Your task to perform on an android device: create a new album in the google photos Image 0: 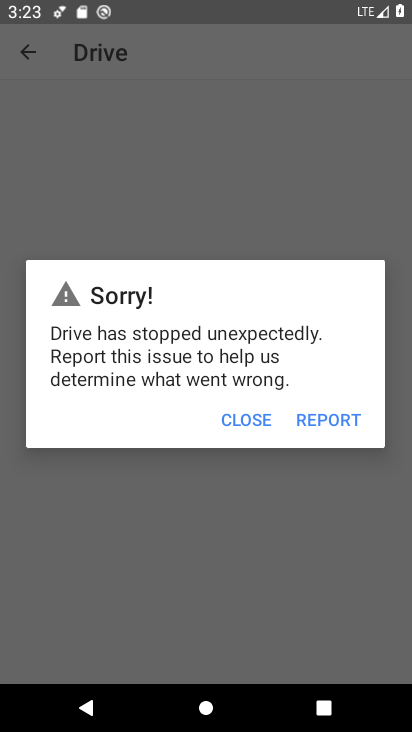
Step 0: press home button
Your task to perform on an android device: create a new album in the google photos Image 1: 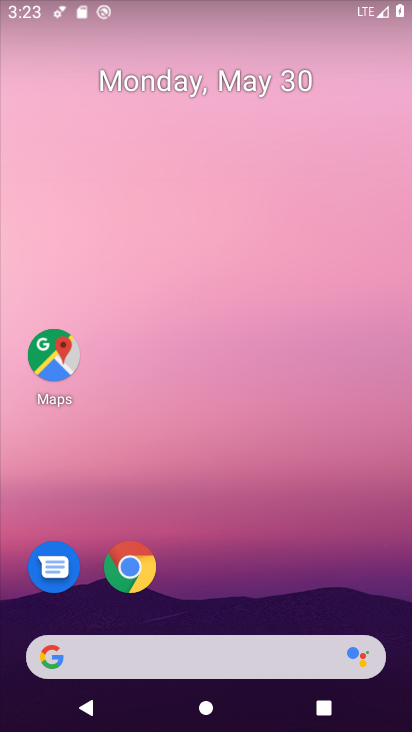
Step 1: drag from (259, 578) to (341, 10)
Your task to perform on an android device: create a new album in the google photos Image 2: 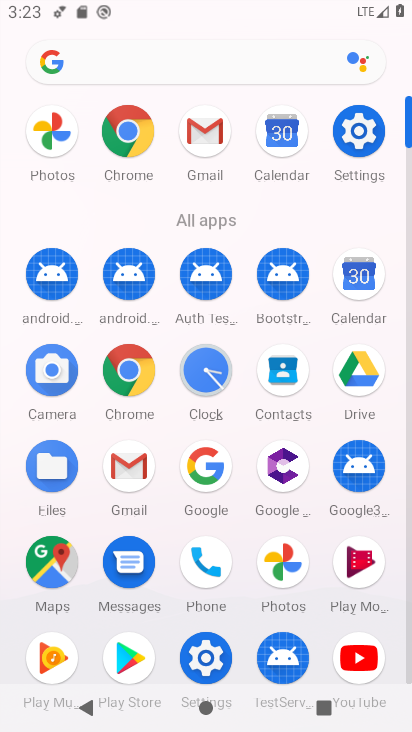
Step 2: click (61, 134)
Your task to perform on an android device: create a new album in the google photos Image 3: 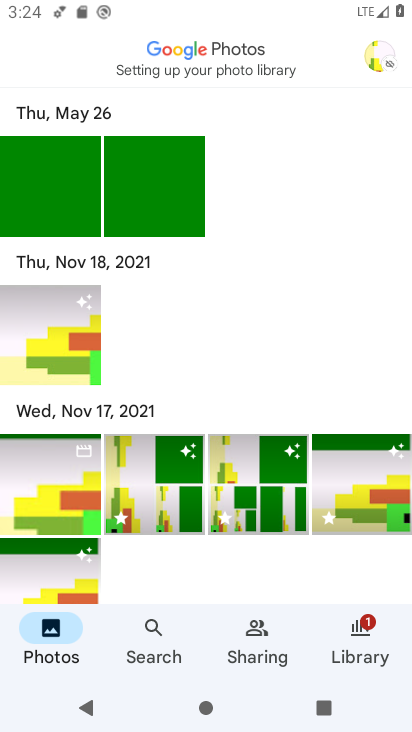
Step 3: click (347, 651)
Your task to perform on an android device: create a new album in the google photos Image 4: 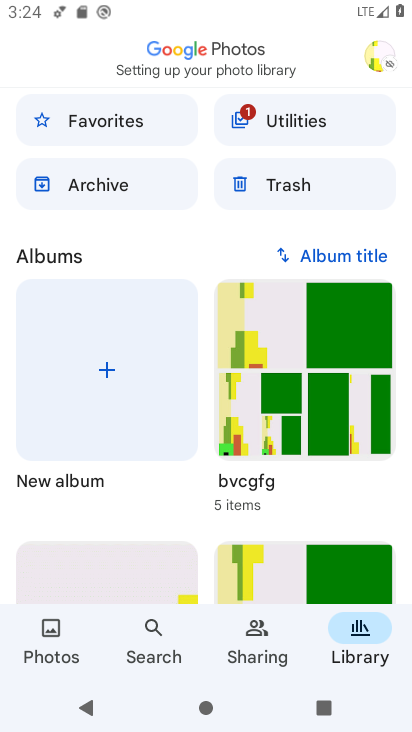
Step 4: click (109, 362)
Your task to perform on an android device: create a new album in the google photos Image 5: 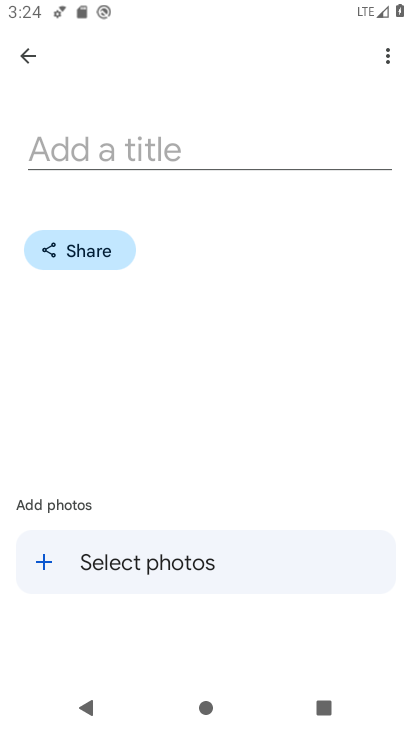
Step 5: click (122, 143)
Your task to perform on an android device: create a new album in the google photos Image 6: 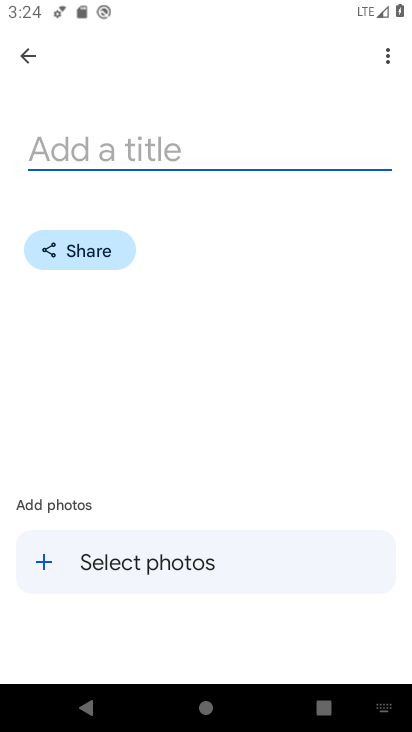
Step 6: type "njkikjknj"
Your task to perform on an android device: create a new album in the google photos Image 7: 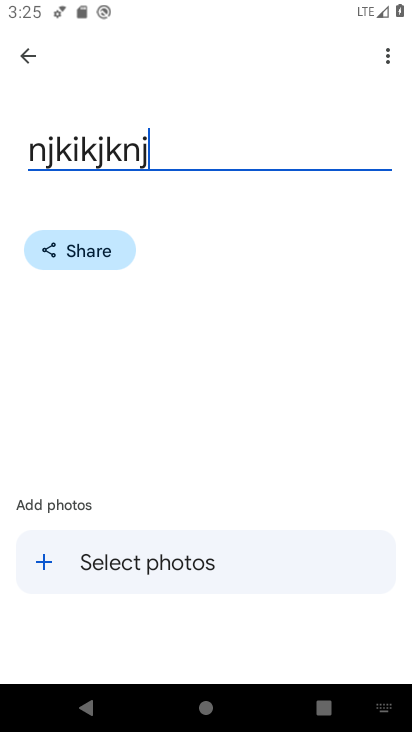
Step 7: click (39, 563)
Your task to perform on an android device: create a new album in the google photos Image 8: 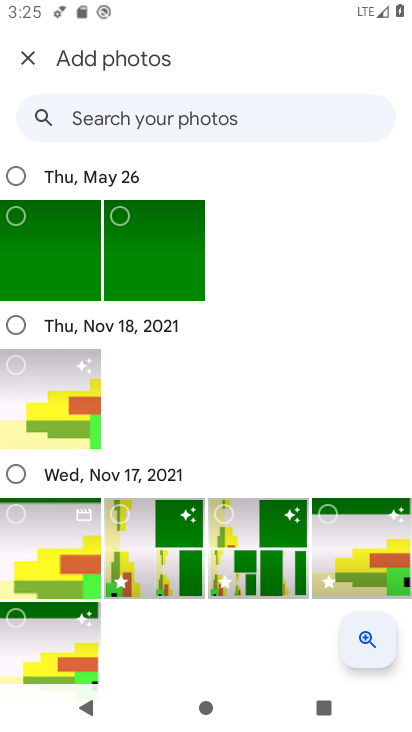
Step 8: click (100, 237)
Your task to perform on an android device: create a new album in the google photos Image 9: 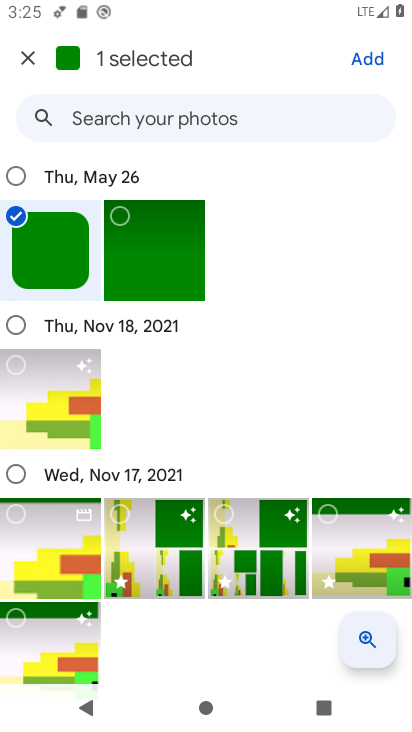
Step 9: click (363, 63)
Your task to perform on an android device: create a new album in the google photos Image 10: 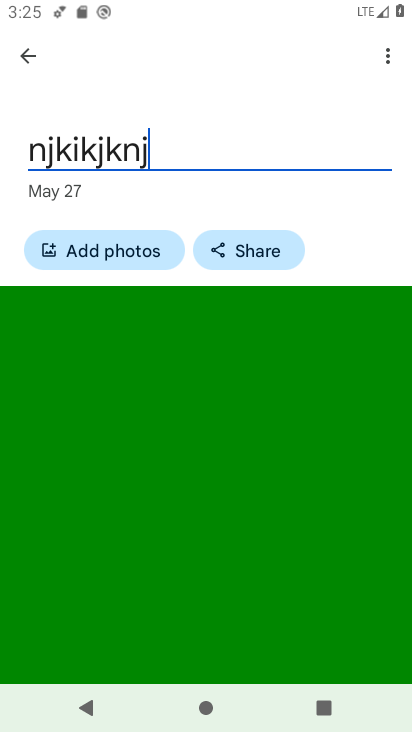
Step 10: task complete